Your task to perform on an android device: add a label to a message in the gmail app Image 0: 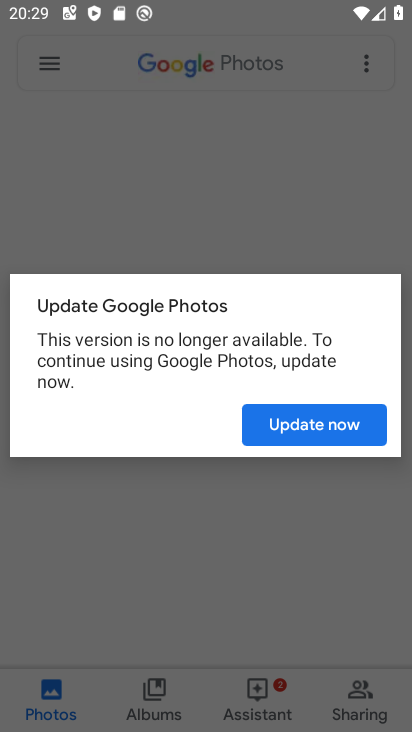
Step 0: press home button
Your task to perform on an android device: add a label to a message in the gmail app Image 1: 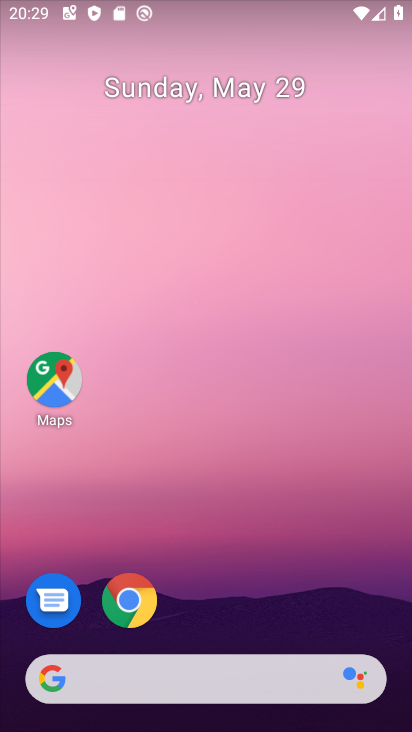
Step 1: drag from (315, 591) to (333, 213)
Your task to perform on an android device: add a label to a message in the gmail app Image 2: 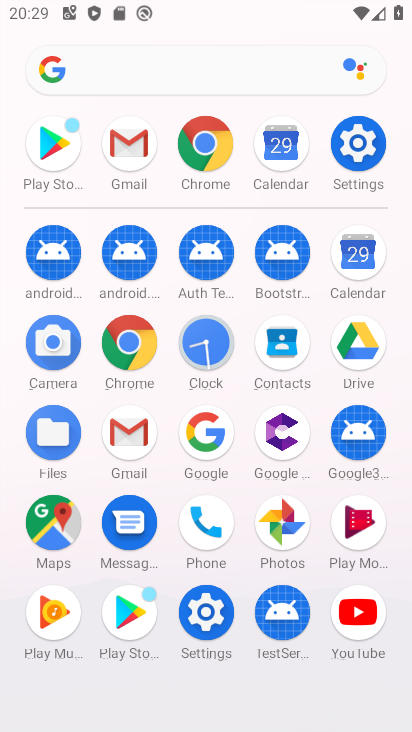
Step 2: click (143, 433)
Your task to perform on an android device: add a label to a message in the gmail app Image 3: 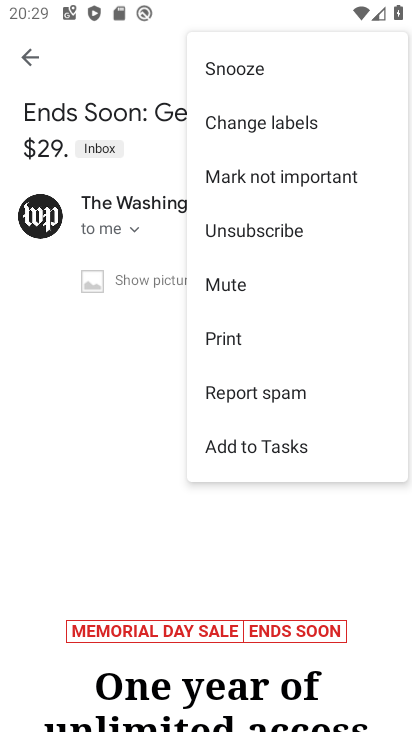
Step 3: click (42, 58)
Your task to perform on an android device: add a label to a message in the gmail app Image 4: 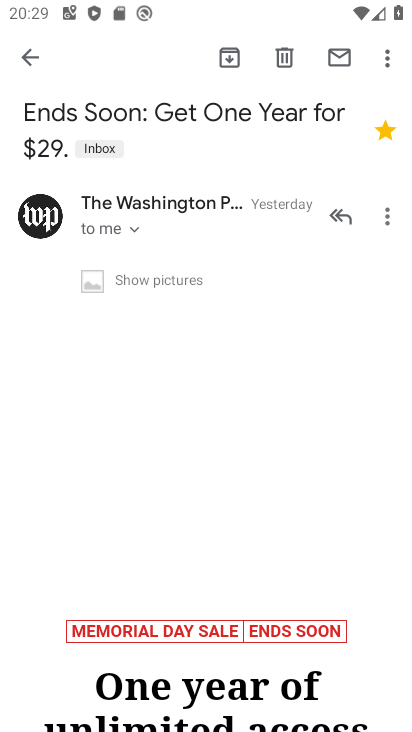
Step 4: click (42, 58)
Your task to perform on an android device: add a label to a message in the gmail app Image 5: 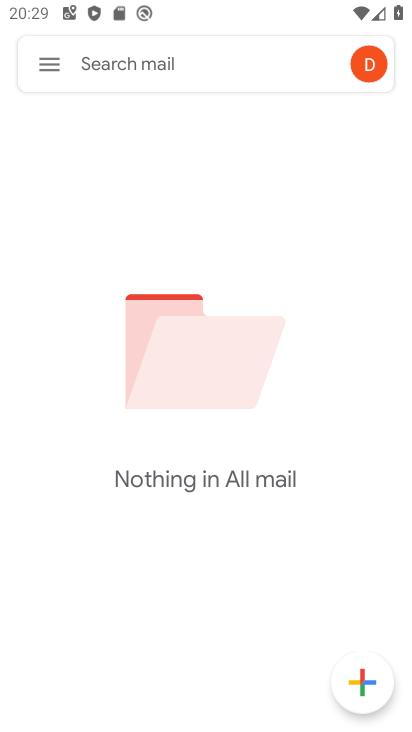
Step 5: task complete